Your task to perform on an android device: set the timer Image 0: 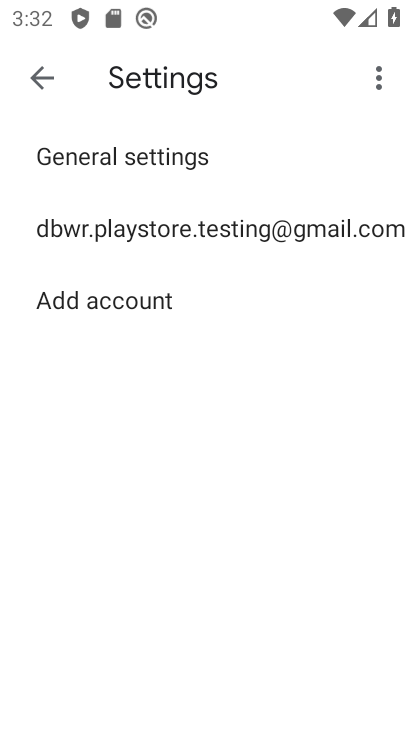
Step 0: press home button
Your task to perform on an android device: set the timer Image 1: 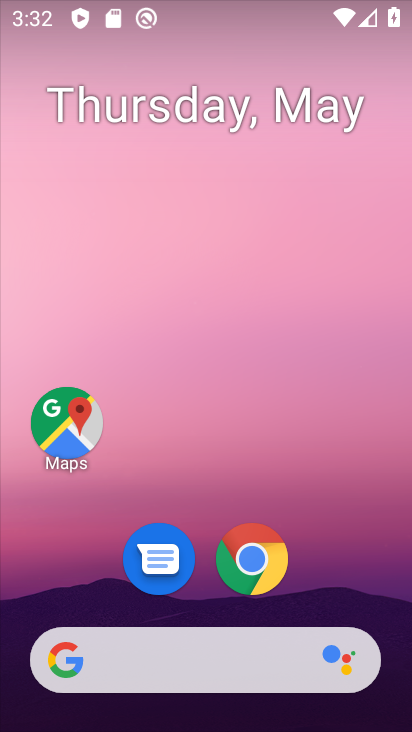
Step 1: drag from (248, 463) to (262, 157)
Your task to perform on an android device: set the timer Image 2: 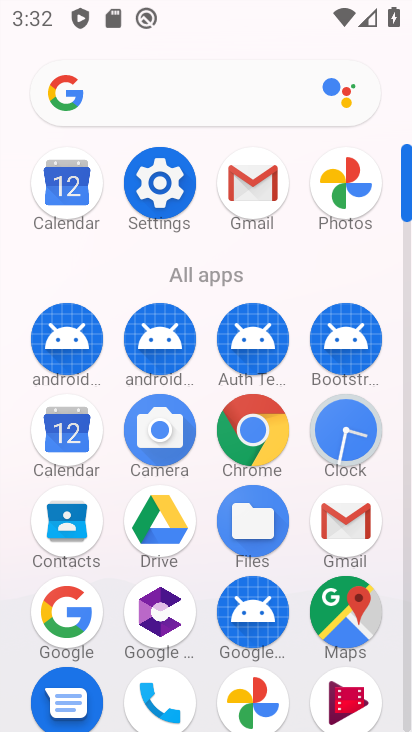
Step 2: click (362, 439)
Your task to perform on an android device: set the timer Image 3: 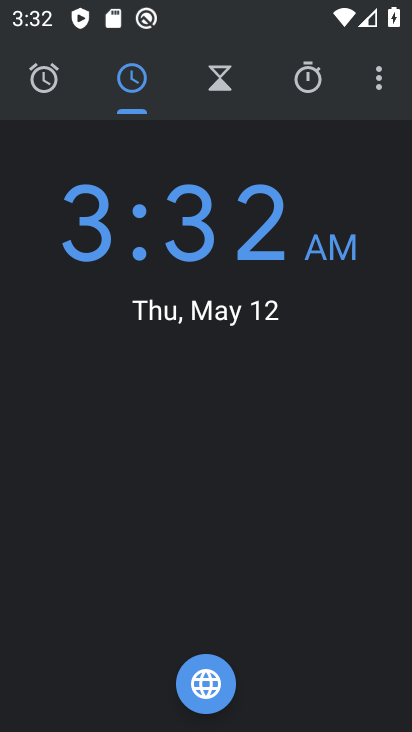
Step 3: click (223, 96)
Your task to perform on an android device: set the timer Image 4: 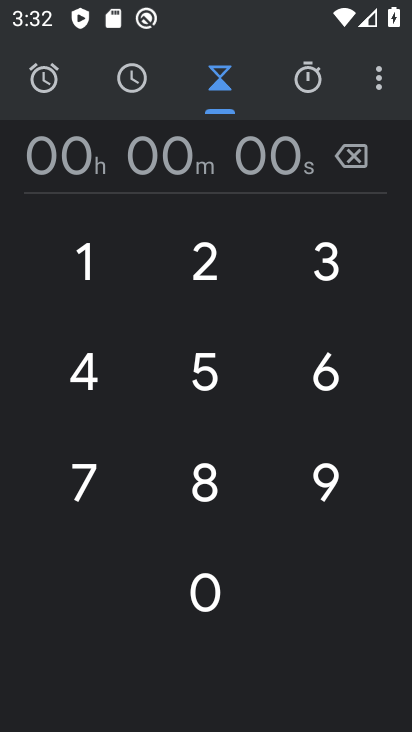
Step 4: click (238, 259)
Your task to perform on an android device: set the timer Image 5: 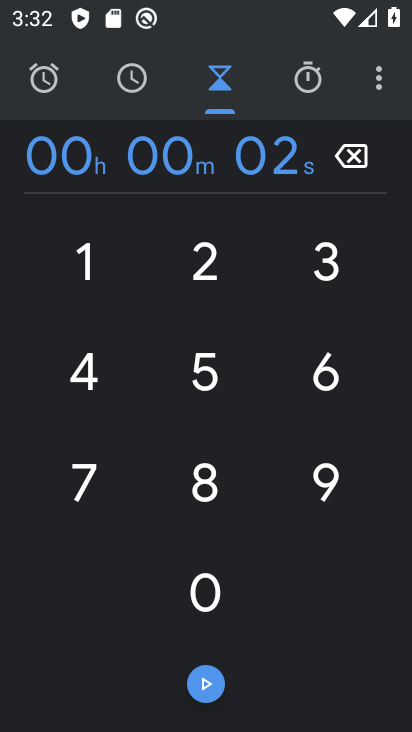
Step 5: click (314, 268)
Your task to perform on an android device: set the timer Image 6: 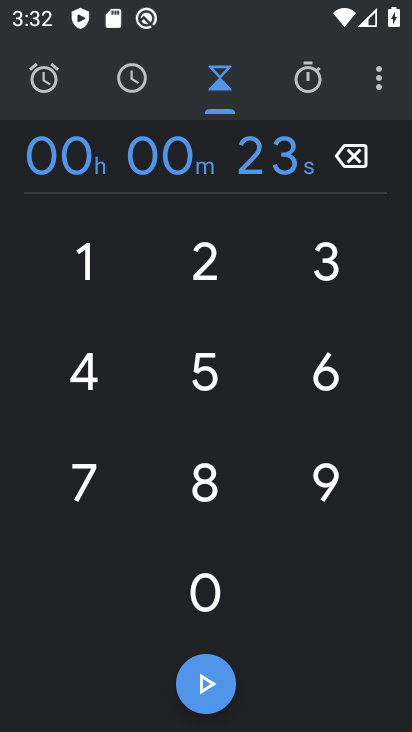
Step 6: click (207, 685)
Your task to perform on an android device: set the timer Image 7: 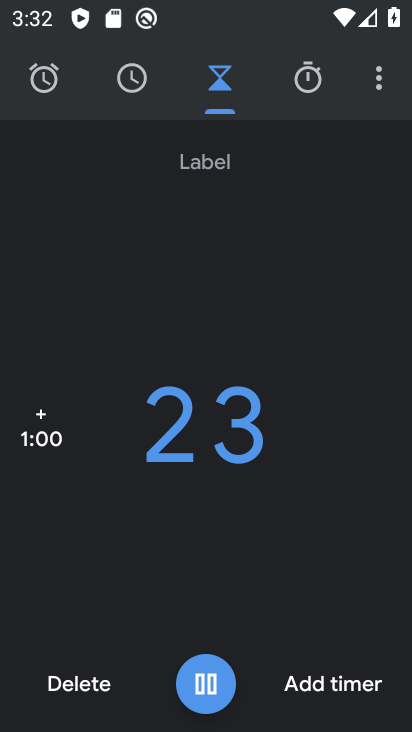
Step 7: task complete